Your task to perform on an android device: Play the last video I watched on Youtube Image 0: 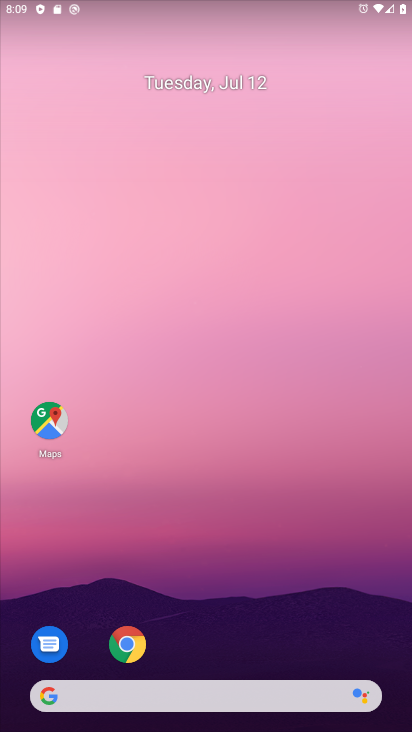
Step 0: drag from (104, 438) to (227, 159)
Your task to perform on an android device: Play the last video I watched on Youtube Image 1: 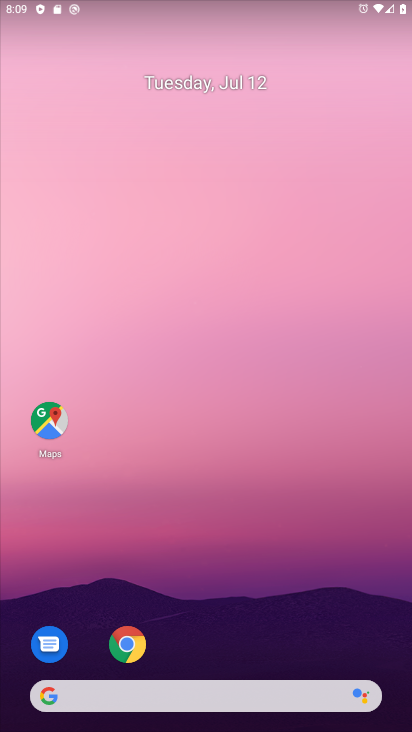
Step 1: drag from (14, 699) to (232, 3)
Your task to perform on an android device: Play the last video I watched on Youtube Image 2: 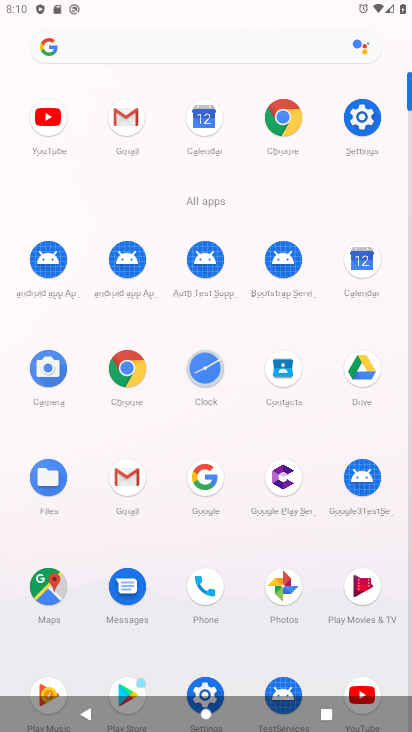
Step 2: click (369, 690)
Your task to perform on an android device: Play the last video I watched on Youtube Image 3: 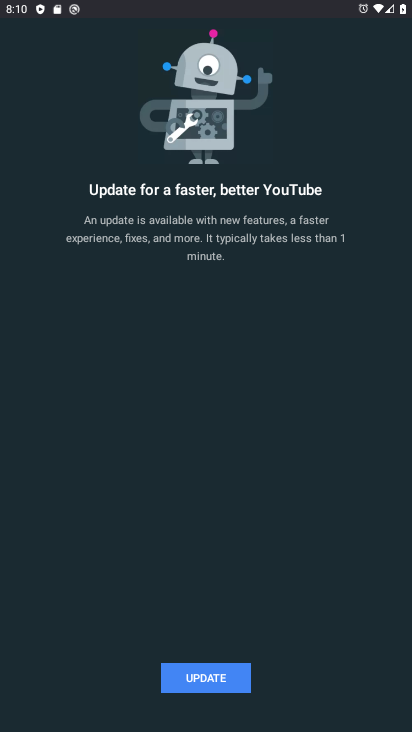
Step 3: click (178, 672)
Your task to perform on an android device: Play the last video I watched on Youtube Image 4: 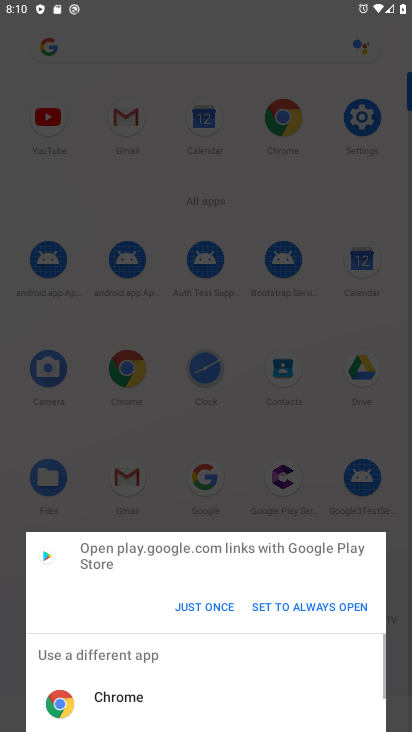
Step 4: click (204, 611)
Your task to perform on an android device: Play the last video I watched on Youtube Image 5: 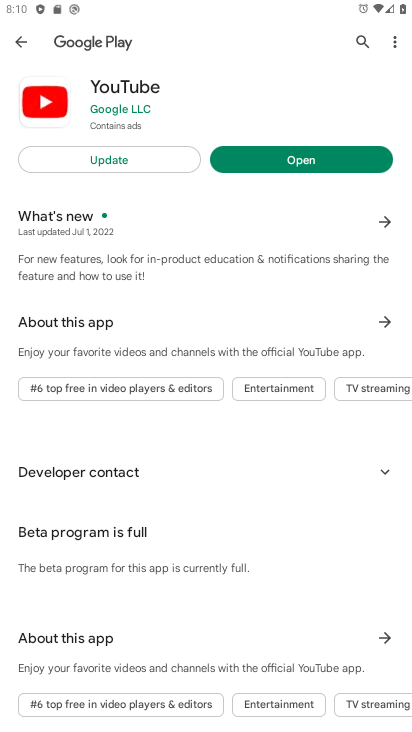
Step 5: click (257, 164)
Your task to perform on an android device: Play the last video I watched on Youtube Image 6: 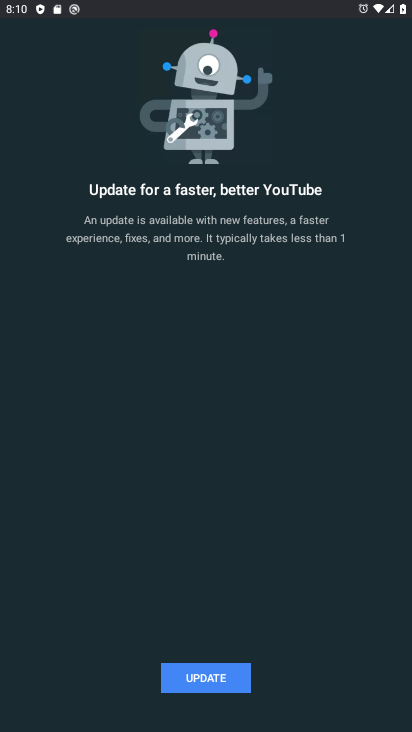
Step 6: task complete